Your task to perform on an android device: check android version Image 0: 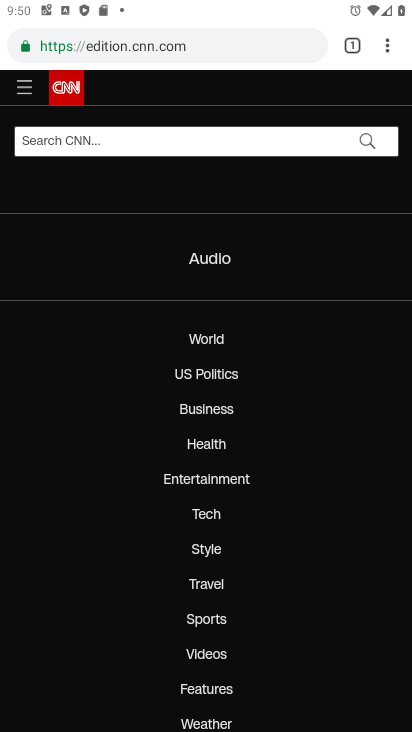
Step 0: press home button
Your task to perform on an android device: check android version Image 1: 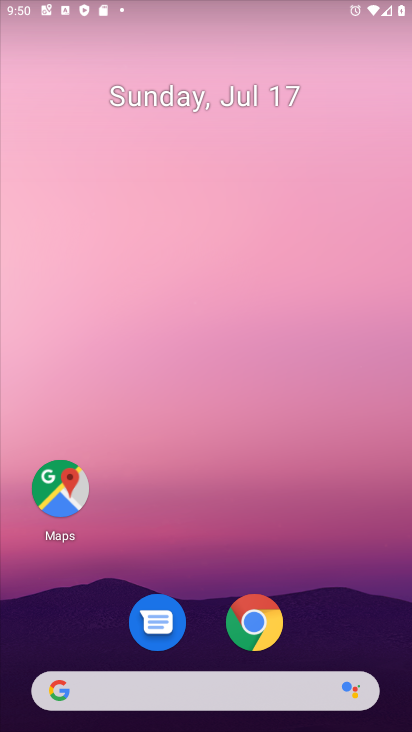
Step 1: drag from (204, 639) to (412, 42)
Your task to perform on an android device: check android version Image 2: 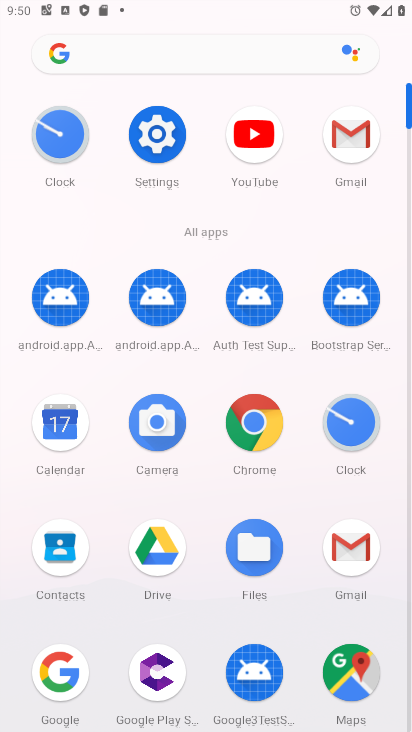
Step 2: click (155, 144)
Your task to perform on an android device: check android version Image 3: 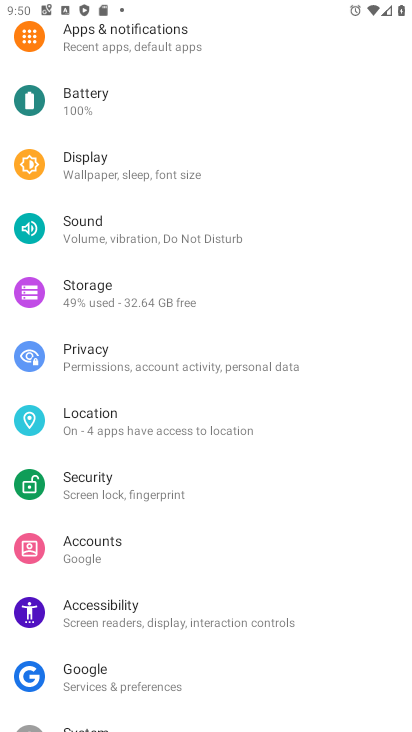
Step 3: drag from (157, 719) to (343, 13)
Your task to perform on an android device: check android version Image 4: 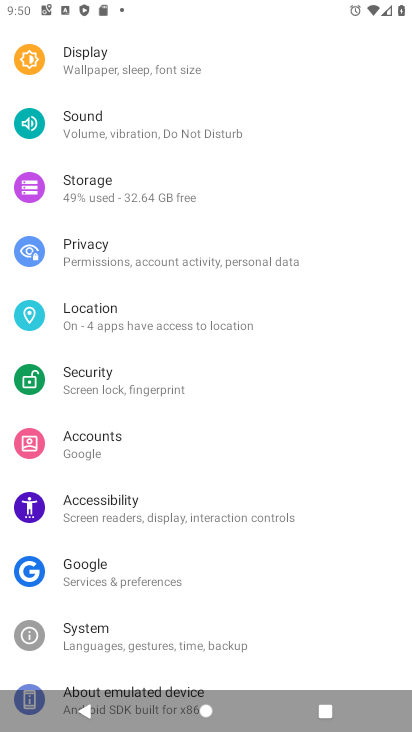
Step 4: drag from (254, 539) to (328, 56)
Your task to perform on an android device: check android version Image 5: 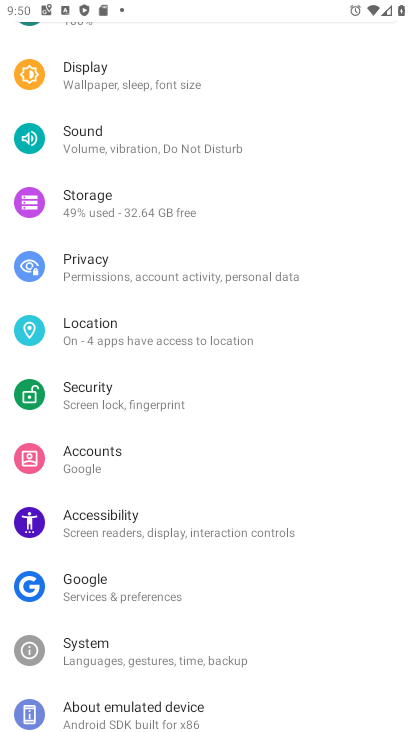
Step 5: click (144, 705)
Your task to perform on an android device: check android version Image 6: 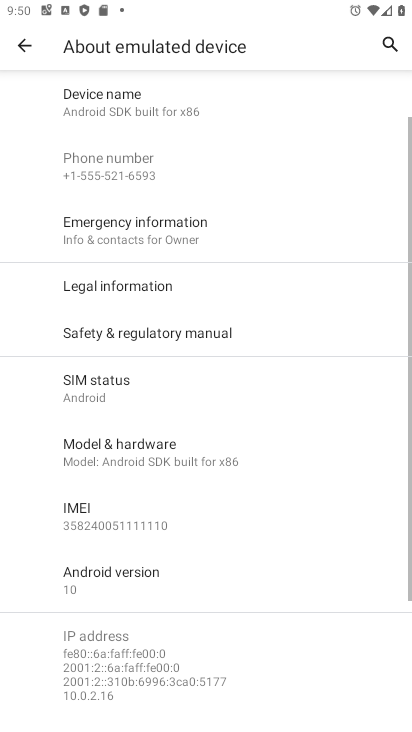
Step 6: task complete